Your task to perform on an android device: check google app version Image 0: 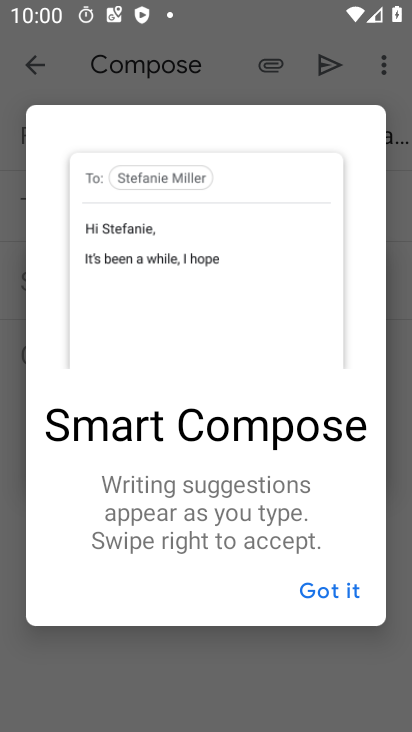
Step 0: press home button
Your task to perform on an android device: check google app version Image 1: 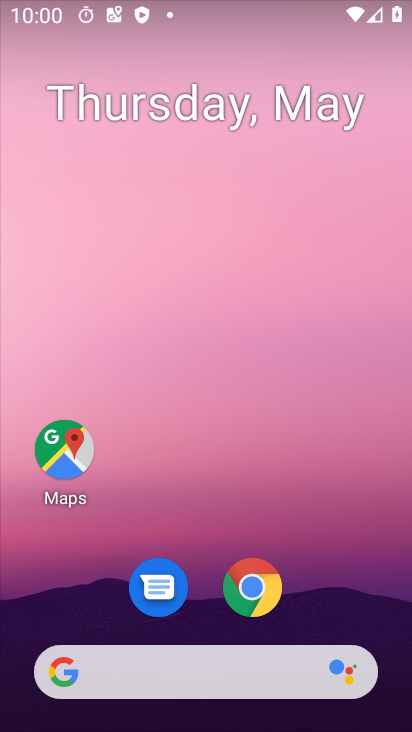
Step 1: drag from (320, 603) to (320, 16)
Your task to perform on an android device: check google app version Image 2: 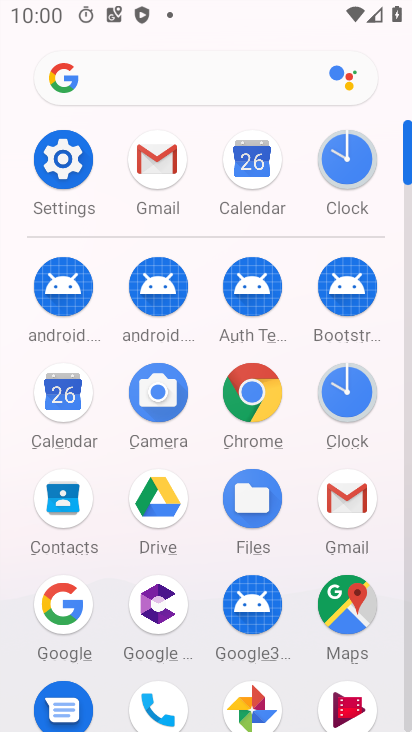
Step 2: click (59, 609)
Your task to perform on an android device: check google app version Image 3: 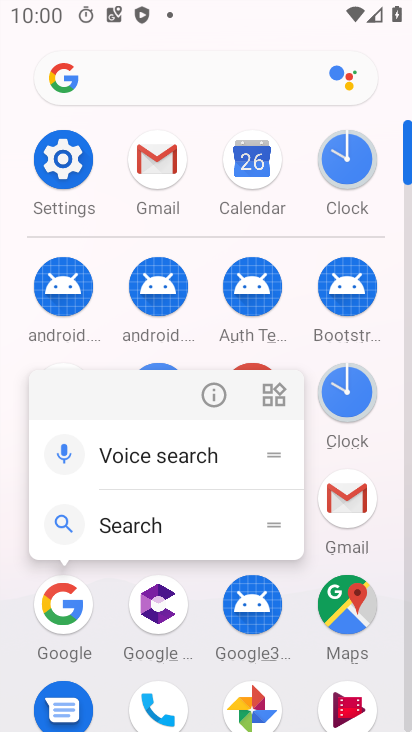
Step 3: click (216, 389)
Your task to perform on an android device: check google app version Image 4: 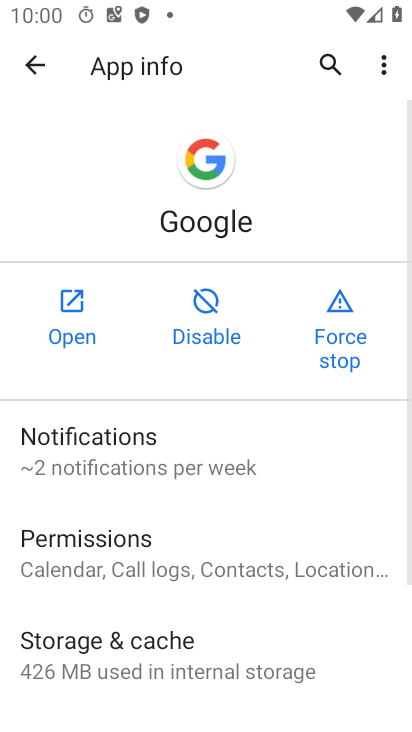
Step 4: drag from (293, 674) to (267, 239)
Your task to perform on an android device: check google app version Image 5: 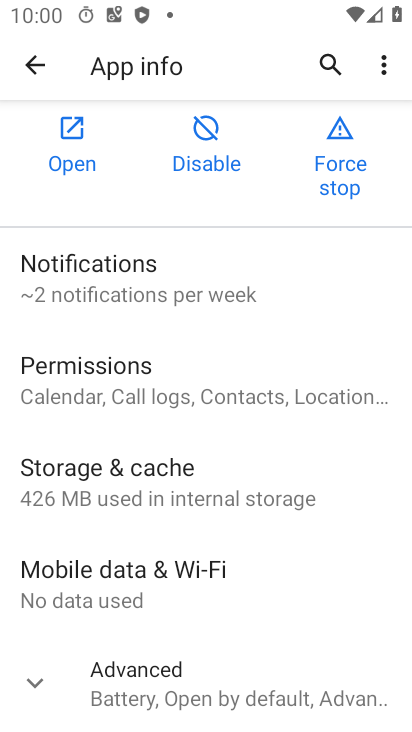
Step 5: drag from (193, 621) to (195, 346)
Your task to perform on an android device: check google app version Image 6: 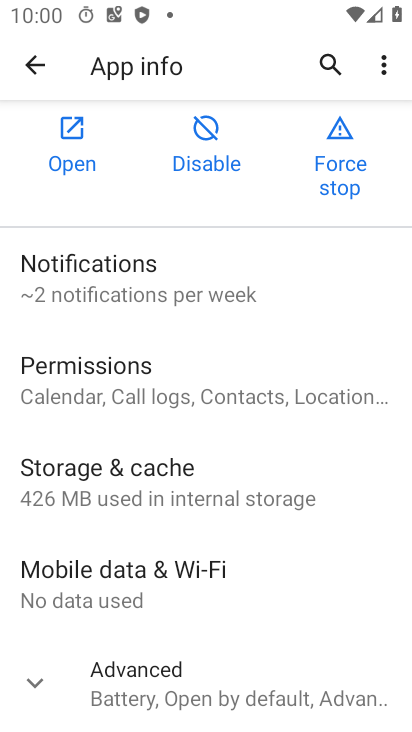
Step 6: click (35, 689)
Your task to perform on an android device: check google app version Image 7: 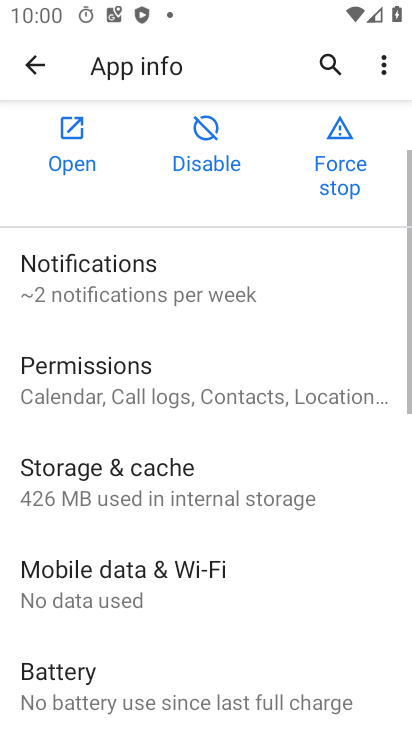
Step 7: task complete